Your task to perform on an android device: change the clock display to analog Image 0: 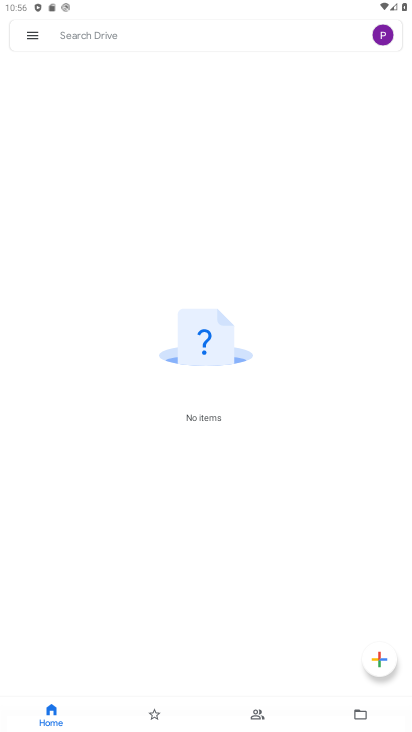
Step 0: press home button
Your task to perform on an android device: change the clock display to analog Image 1: 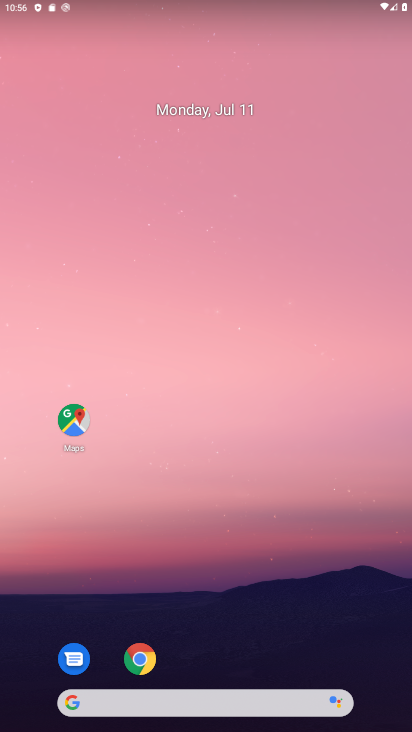
Step 1: drag from (271, 663) to (386, 0)
Your task to perform on an android device: change the clock display to analog Image 2: 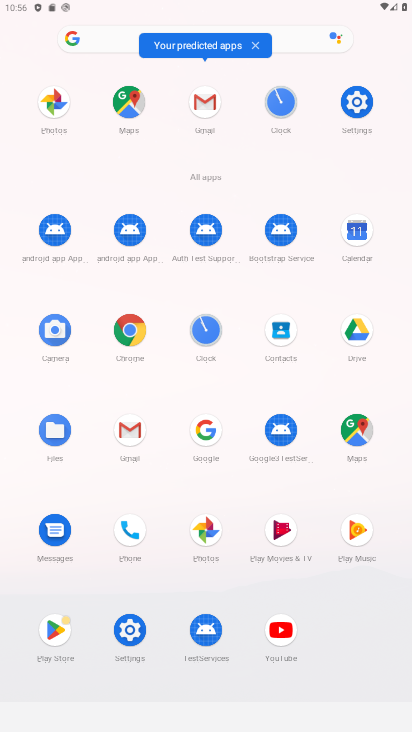
Step 2: click (290, 99)
Your task to perform on an android device: change the clock display to analog Image 3: 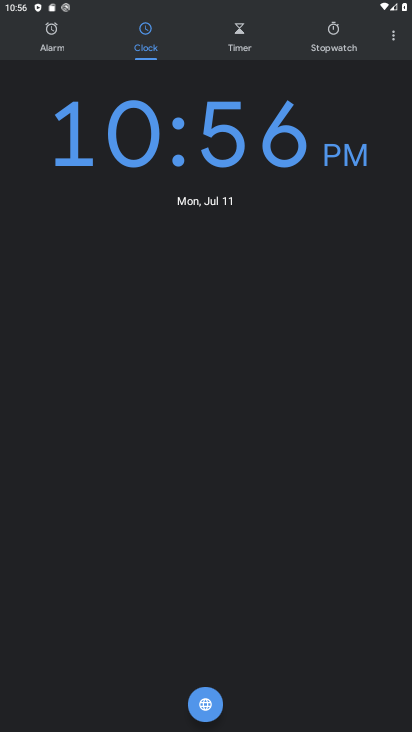
Step 3: click (396, 37)
Your task to perform on an android device: change the clock display to analog Image 4: 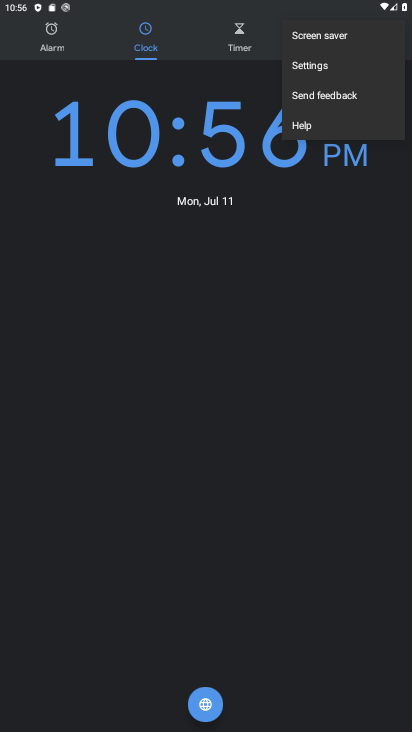
Step 4: click (321, 63)
Your task to perform on an android device: change the clock display to analog Image 5: 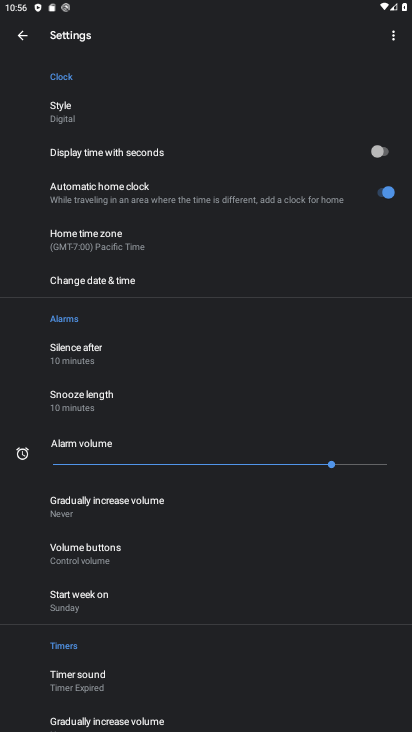
Step 5: click (79, 101)
Your task to perform on an android device: change the clock display to analog Image 6: 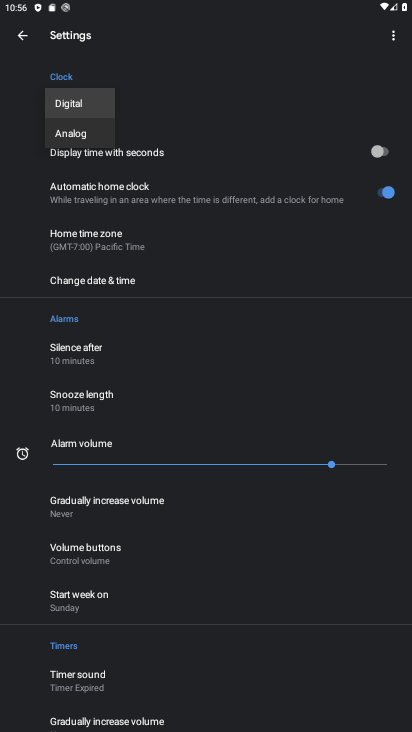
Step 6: click (75, 127)
Your task to perform on an android device: change the clock display to analog Image 7: 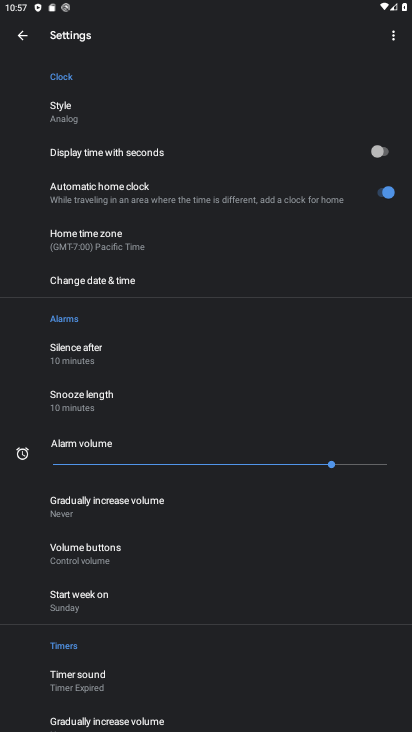
Step 7: task complete